Your task to perform on an android device: Show me the alarms in the clock app Image 0: 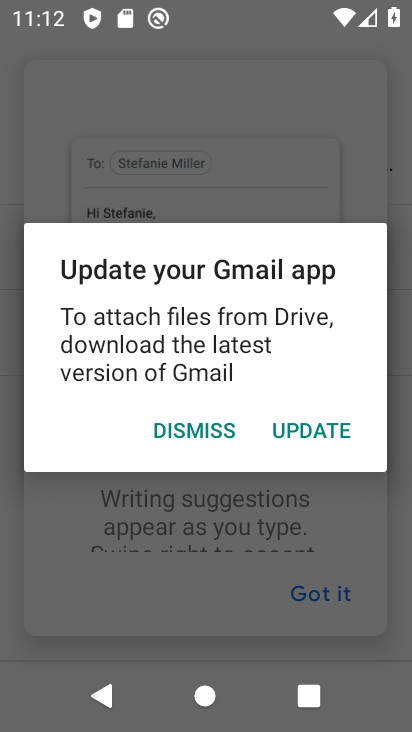
Step 0: press home button
Your task to perform on an android device: Show me the alarms in the clock app Image 1: 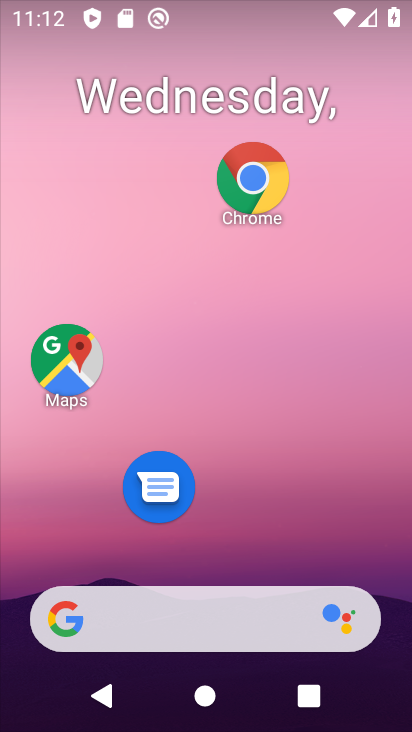
Step 1: drag from (292, 413) to (264, 13)
Your task to perform on an android device: Show me the alarms in the clock app Image 2: 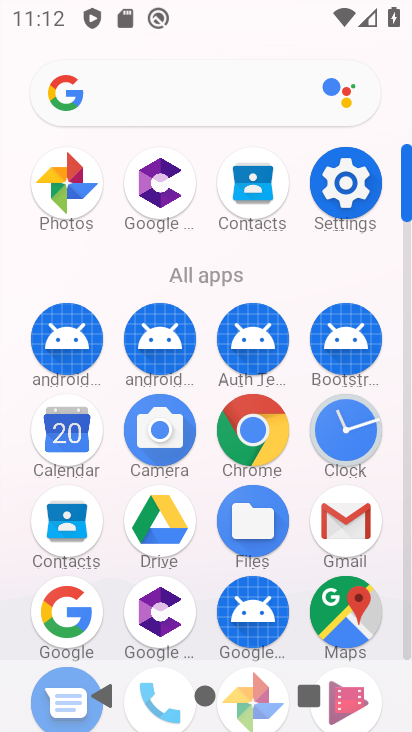
Step 2: click (338, 414)
Your task to perform on an android device: Show me the alarms in the clock app Image 3: 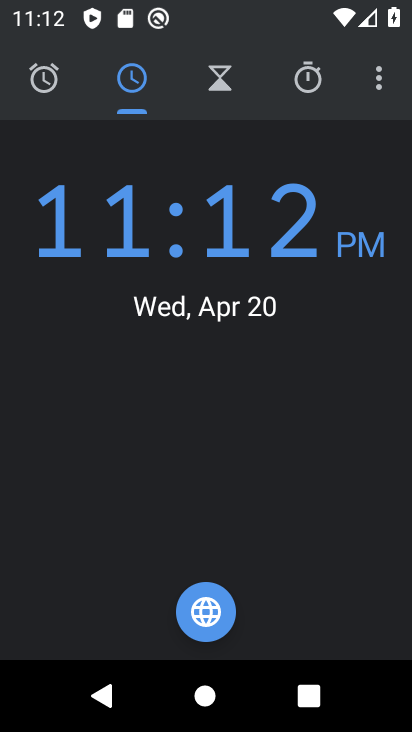
Step 3: click (51, 74)
Your task to perform on an android device: Show me the alarms in the clock app Image 4: 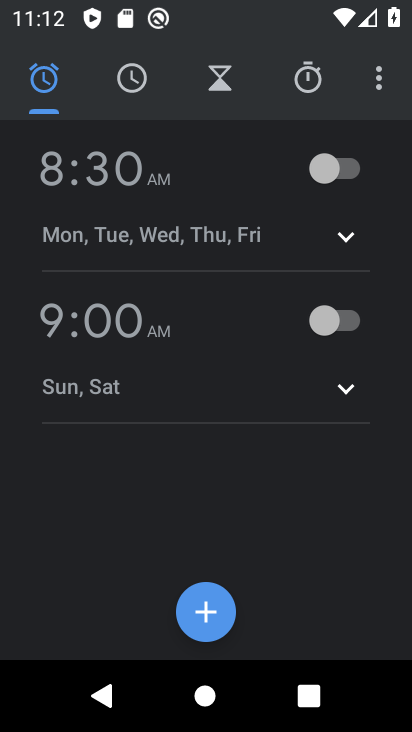
Step 4: task complete